Your task to perform on an android device: Open sound settings Image 0: 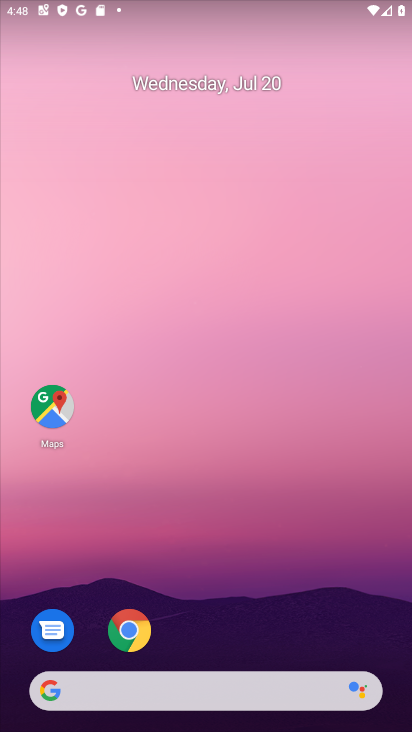
Step 0: drag from (205, 691) to (343, 163)
Your task to perform on an android device: Open sound settings Image 1: 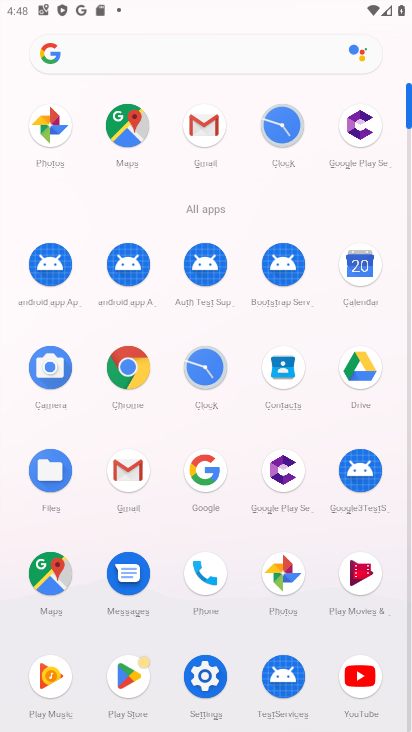
Step 1: click (203, 676)
Your task to perform on an android device: Open sound settings Image 2: 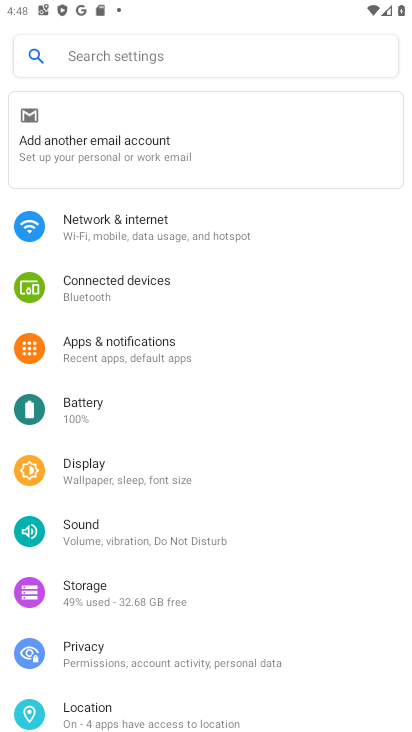
Step 2: click (89, 530)
Your task to perform on an android device: Open sound settings Image 3: 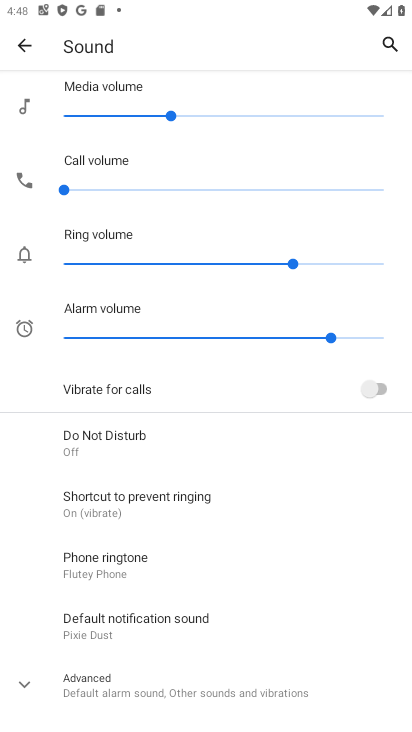
Step 3: task complete